Your task to perform on an android device: Check the weather Image 0: 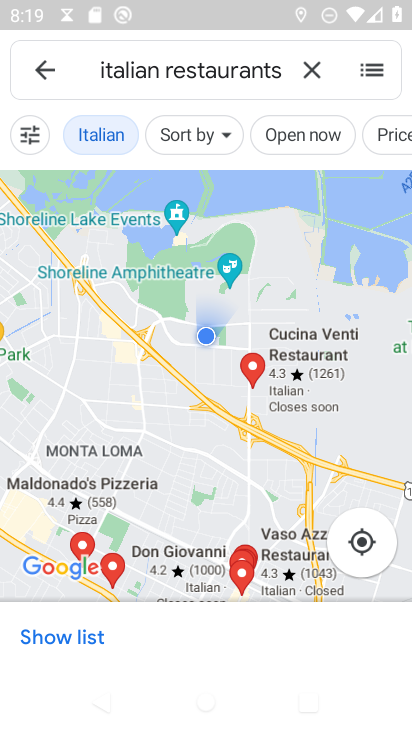
Step 0: press home button
Your task to perform on an android device: Check the weather Image 1: 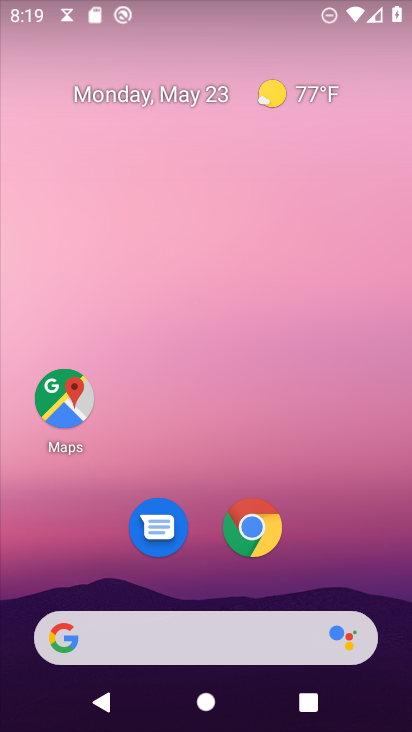
Step 1: drag from (253, 652) to (317, 189)
Your task to perform on an android device: Check the weather Image 2: 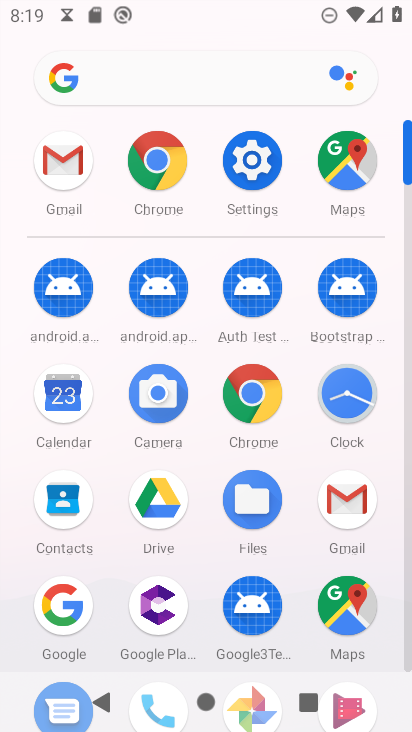
Step 2: click (169, 86)
Your task to perform on an android device: Check the weather Image 3: 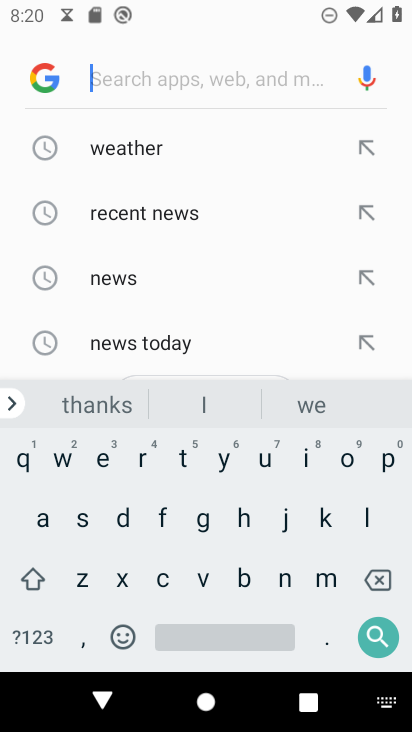
Step 3: click (154, 150)
Your task to perform on an android device: Check the weather Image 4: 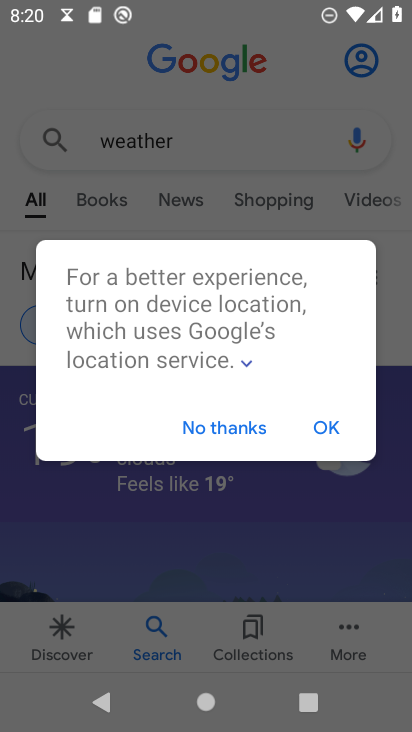
Step 4: task complete